Your task to perform on an android device: Open network settings Image 0: 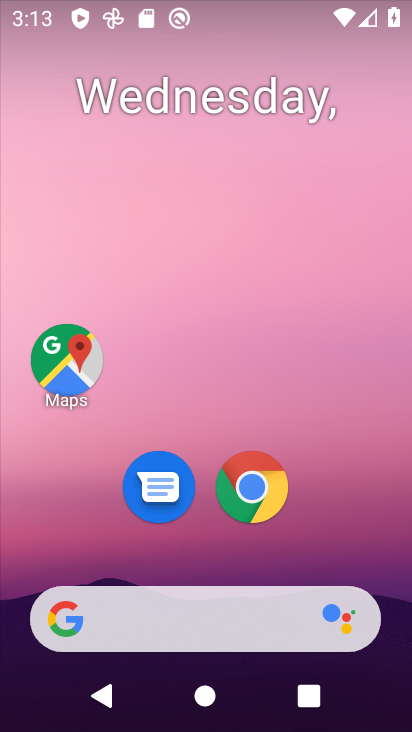
Step 0: drag from (383, 541) to (367, 200)
Your task to perform on an android device: Open network settings Image 1: 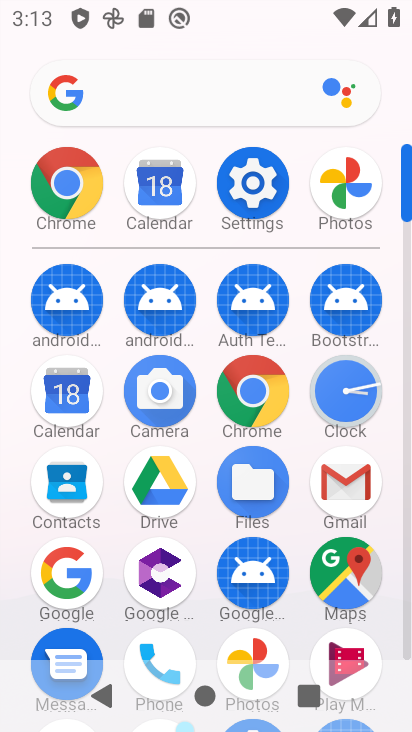
Step 1: click (270, 204)
Your task to perform on an android device: Open network settings Image 2: 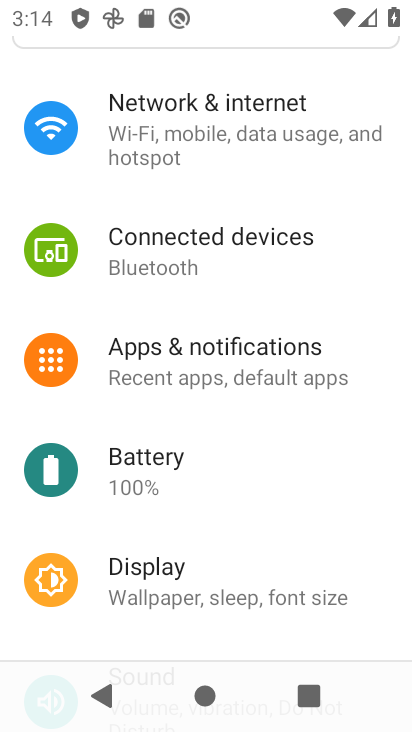
Step 2: drag from (341, 515) to (355, 418)
Your task to perform on an android device: Open network settings Image 3: 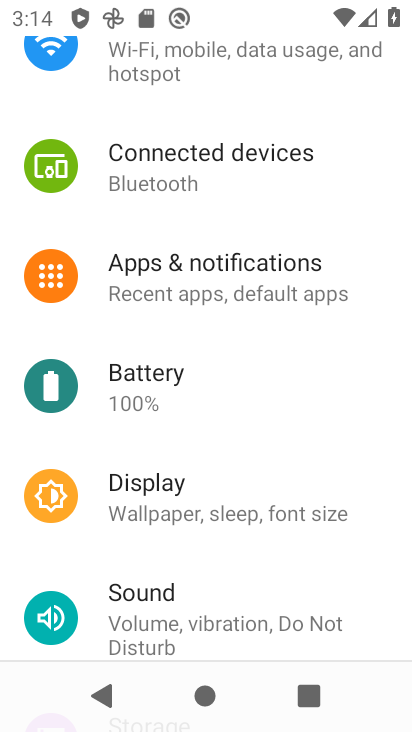
Step 3: drag from (344, 560) to (360, 403)
Your task to perform on an android device: Open network settings Image 4: 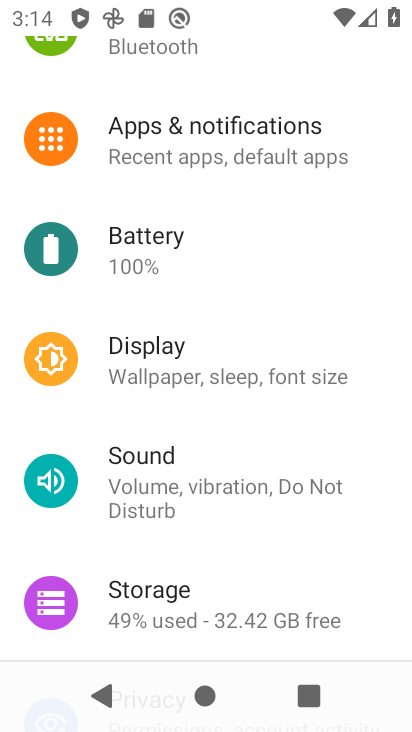
Step 4: drag from (342, 607) to (342, 463)
Your task to perform on an android device: Open network settings Image 5: 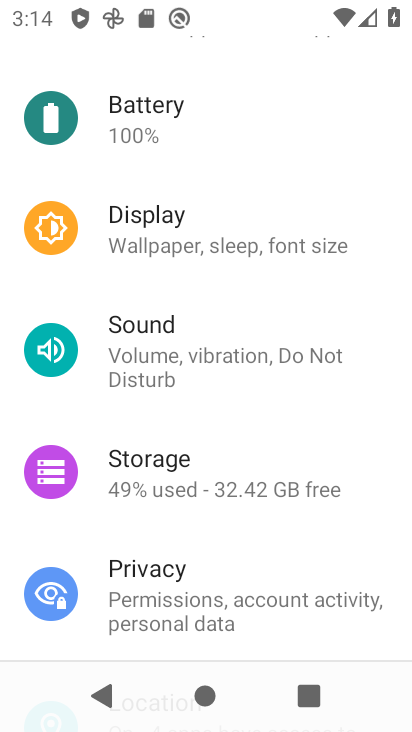
Step 5: drag from (363, 565) to (368, 466)
Your task to perform on an android device: Open network settings Image 6: 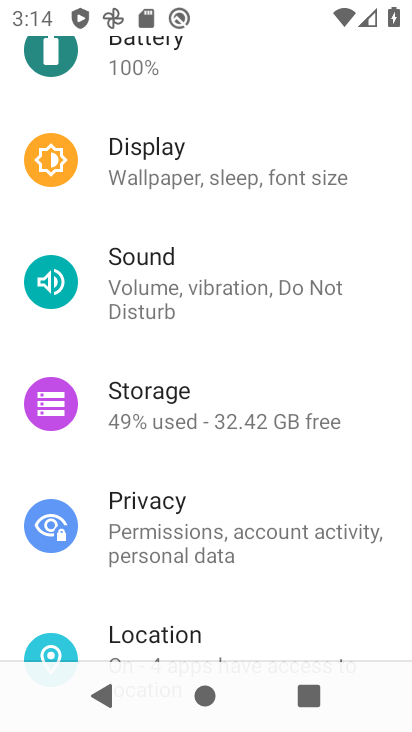
Step 6: drag from (337, 623) to (342, 490)
Your task to perform on an android device: Open network settings Image 7: 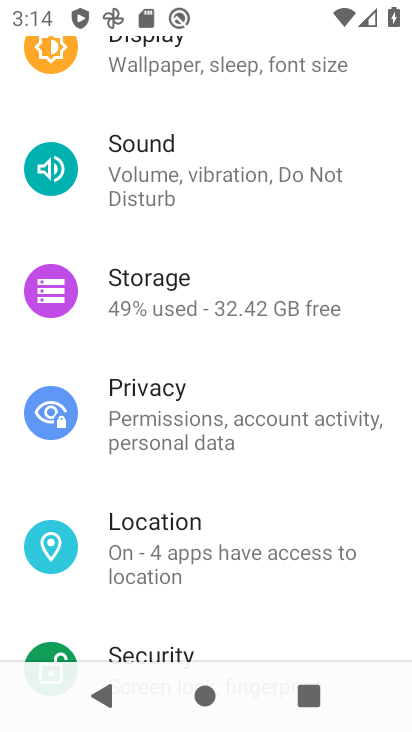
Step 7: drag from (336, 625) to (364, 439)
Your task to perform on an android device: Open network settings Image 8: 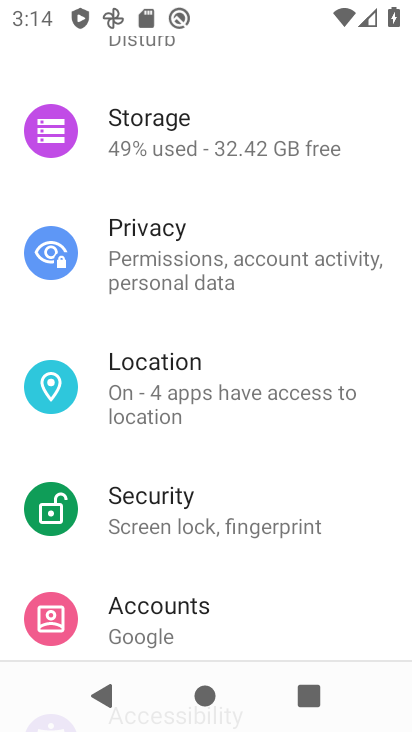
Step 8: drag from (336, 597) to (342, 458)
Your task to perform on an android device: Open network settings Image 9: 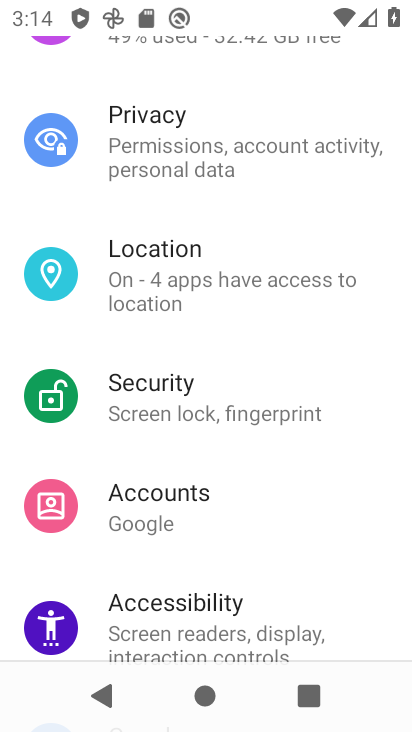
Step 9: drag from (313, 591) to (315, 457)
Your task to perform on an android device: Open network settings Image 10: 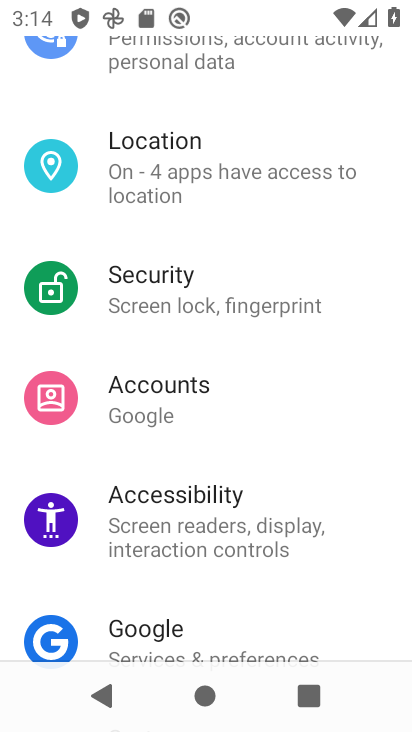
Step 10: drag from (329, 615) to (331, 489)
Your task to perform on an android device: Open network settings Image 11: 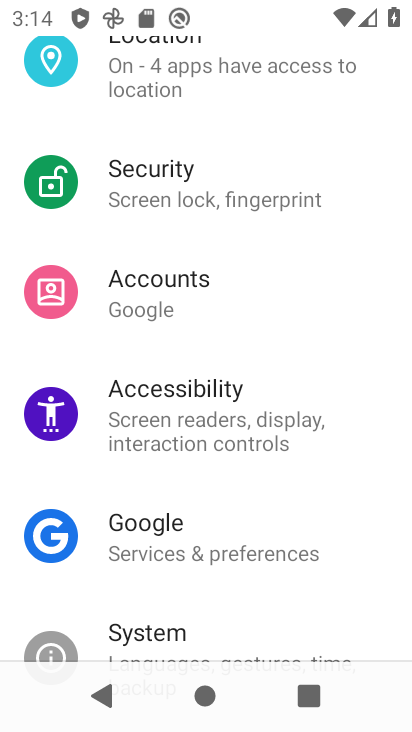
Step 11: drag from (341, 570) to (361, 416)
Your task to perform on an android device: Open network settings Image 12: 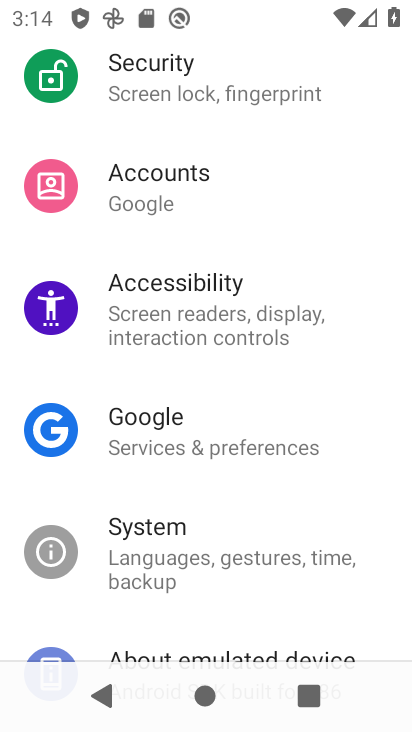
Step 12: drag from (334, 617) to (353, 401)
Your task to perform on an android device: Open network settings Image 13: 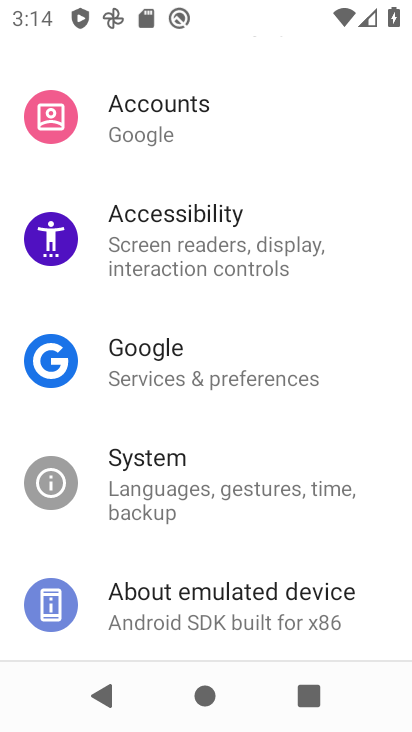
Step 13: drag from (346, 594) to (353, 386)
Your task to perform on an android device: Open network settings Image 14: 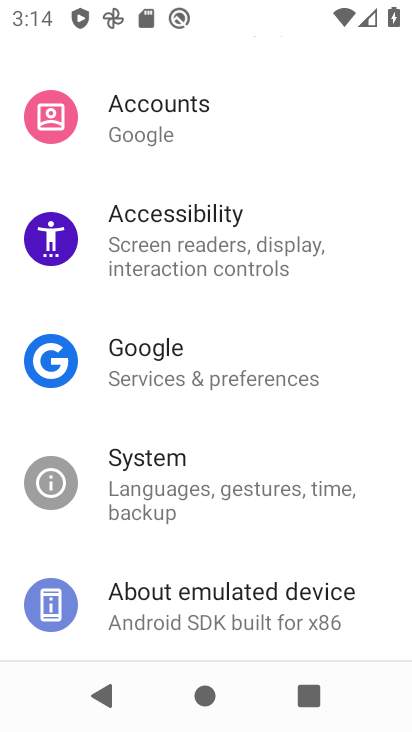
Step 14: drag from (364, 571) to (382, 415)
Your task to perform on an android device: Open network settings Image 15: 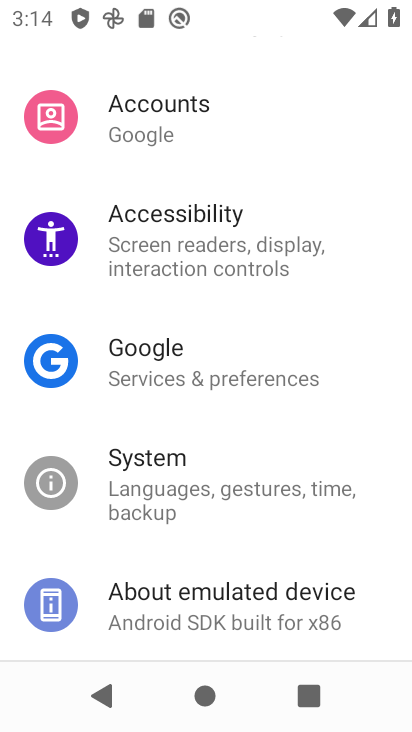
Step 15: drag from (366, 618) to (358, 483)
Your task to perform on an android device: Open network settings Image 16: 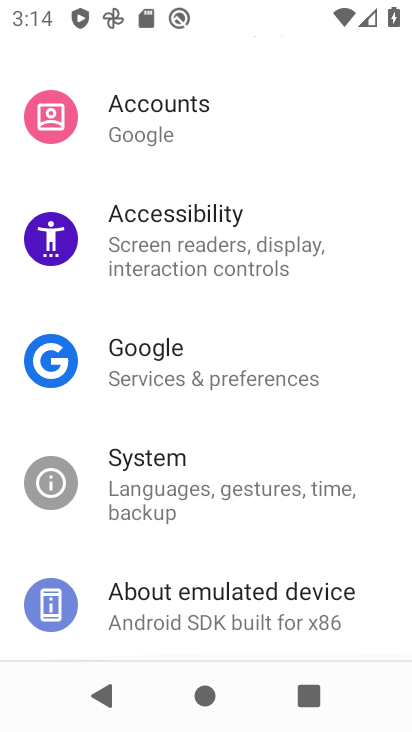
Step 16: drag from (358, 380) to (378, 517)
Your task to perform on an android device: Open network settings Image 17: 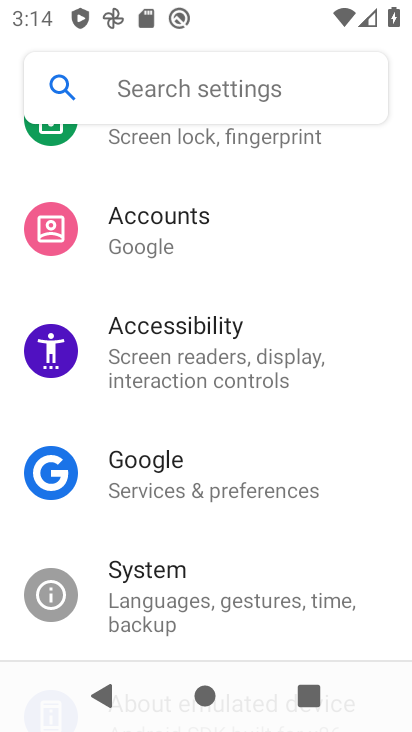
Step 17: drag from (358, 385) to (351, 557)
Your task to perform on an android device: Open network settings Image 18: 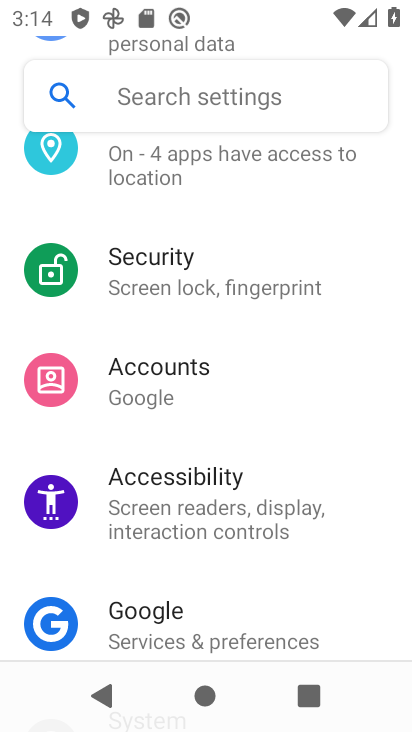
Step 18: drag from (348, 380) to (346, 527)
Your task to perform on an android device: Open network settings Image 19: 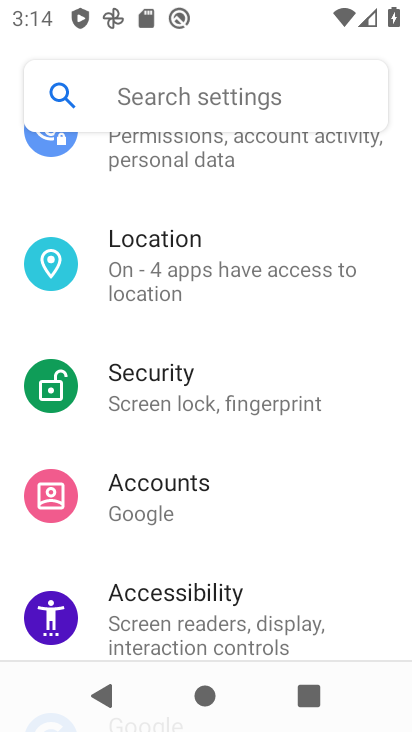
Step 19: drag from (347, 392) to (357, 449)
Your task to perform on an android device: Open network settings Image 20: 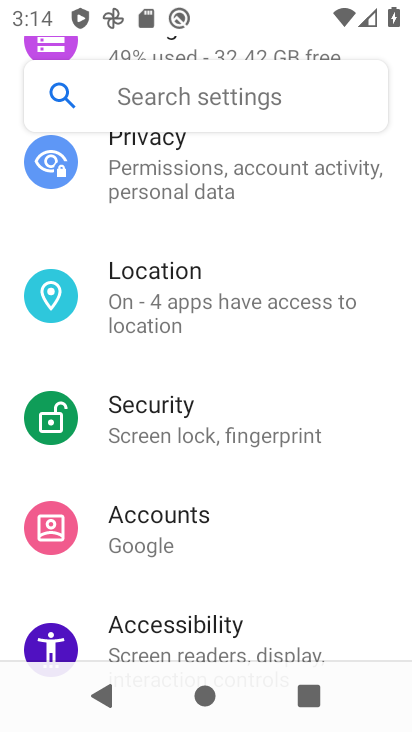
Step 20: drag from (358, 401) to (355, 521)
Your task to perform on an android device: Open network settings Image 21: 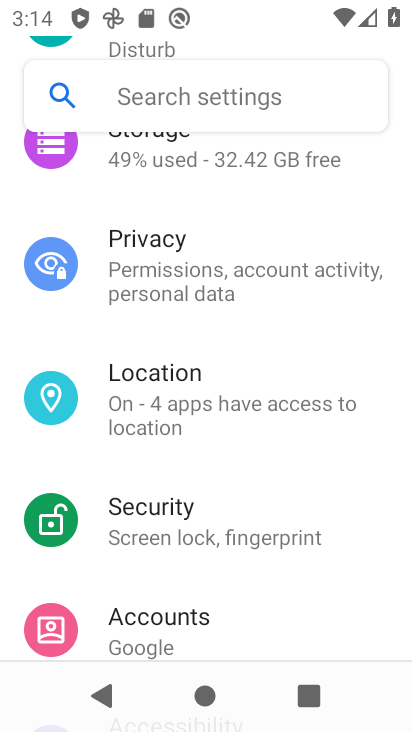
Step 21: drag from (360, 361) to (368, 520)
Your task to perform on an android device: Open network settings Image 22: 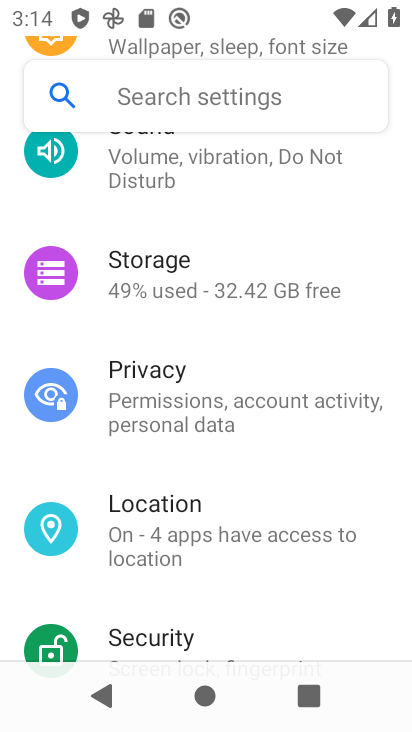
Step 22: drag from (363, 335) to (362, 474)
Your task to perform on an android device: Open network settings Image 23: 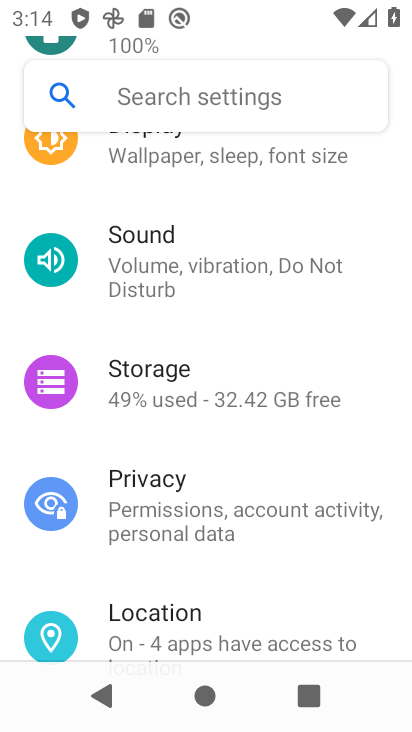
Step 23: drag from (346, 351) to (345, 472)
Your task to perform on an android device: Open network settings Image 24: 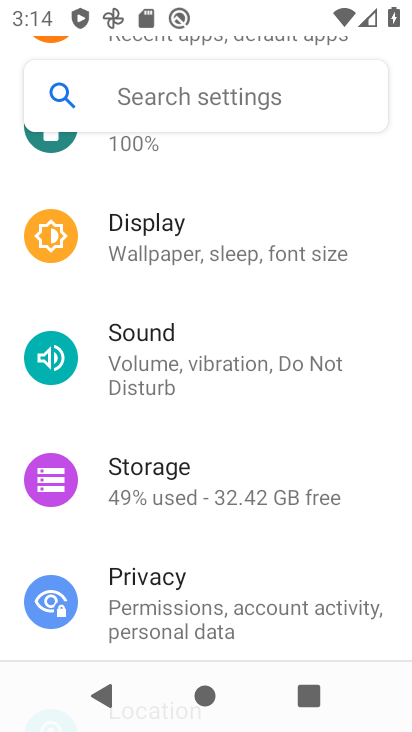
Step 24: drag from (342, 305) to (346, 493)
Your task to perform on an android device: Open network settings Image 25: 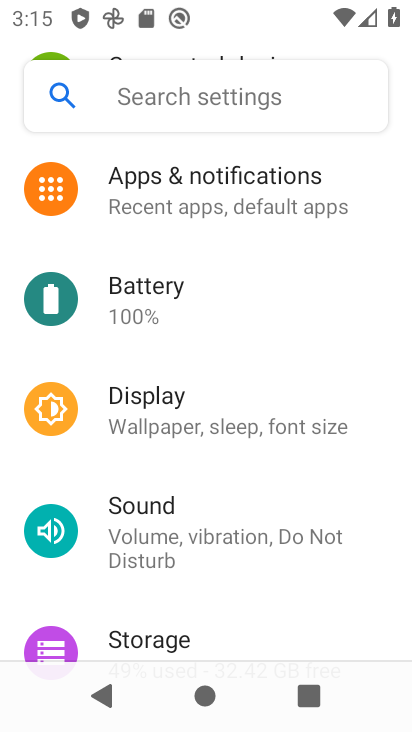
Step 25: drag from (353, 311) to (352, 430)
Your task to perform on an android device: Open network settings Image 26: 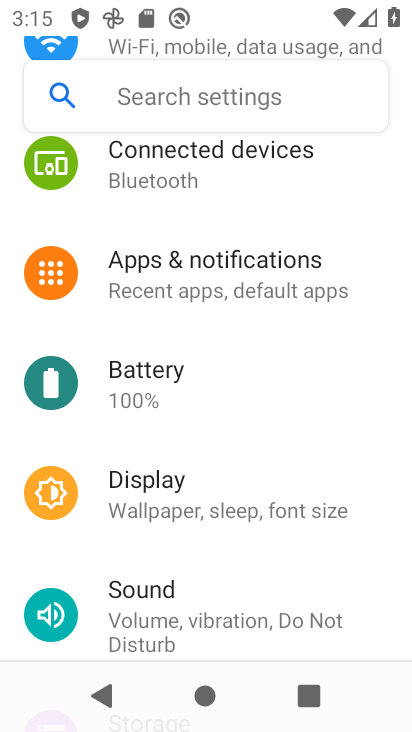
Step 26: drag from (308, 224) to (331, 339)
Your task to perform on an android device: Open network settings Image 27: 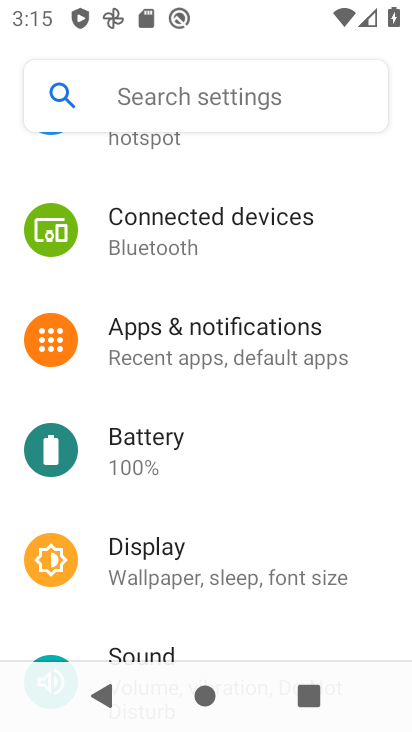
Step 27: drag from (346, 261) to (344, 435)
Your task to perform on an android device: Open network settings Image 28: 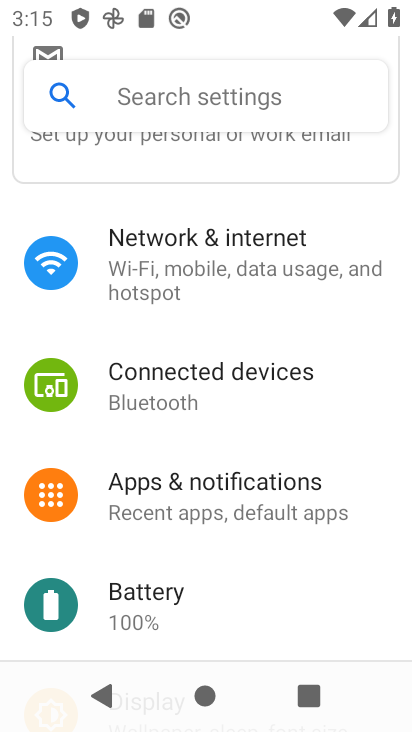
Step 28: click (264, 256)
Your task to perform on an android device: Open network settings Image 29: 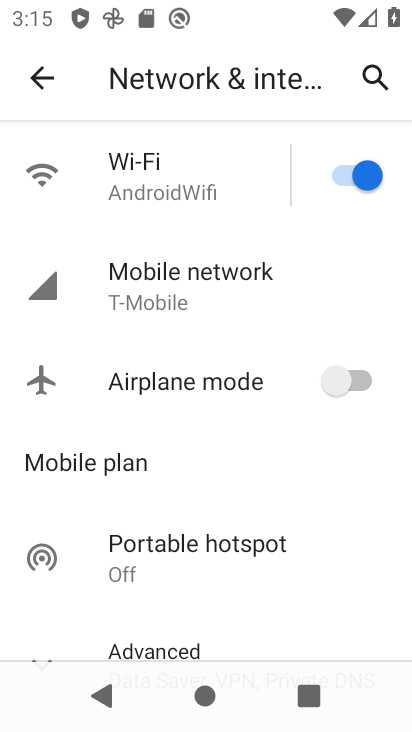
Step 29: task complete